Your task to perform on an android device: Open Google Maps Image 0: 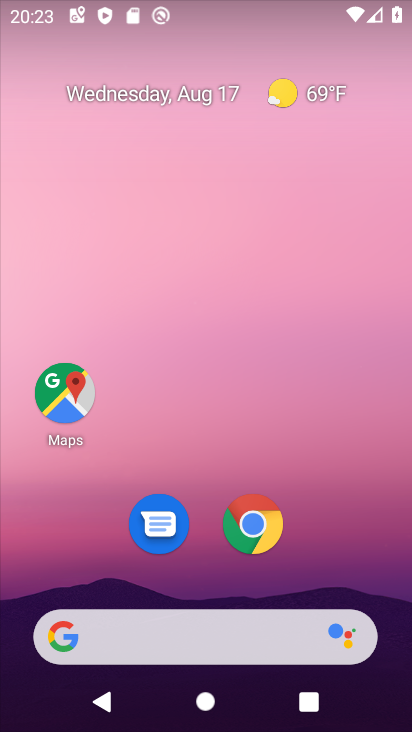
Step 0: click (63, 395)
Your task to perform on an android device: Open Google Maps Image 1: 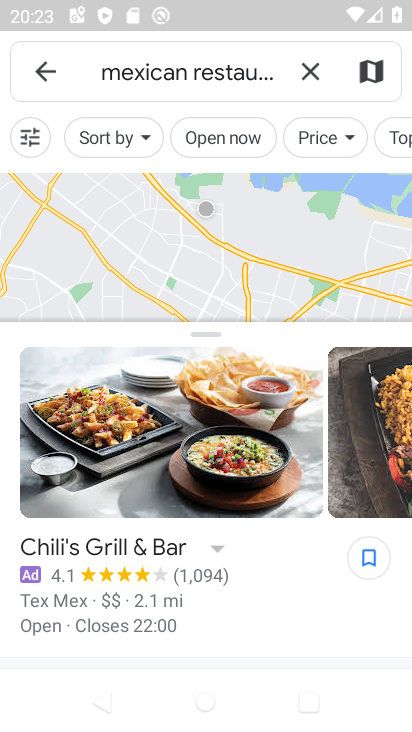
Step 1: click (306, 61)
Your task to perform on an android device: Open Google Maps Image 2: 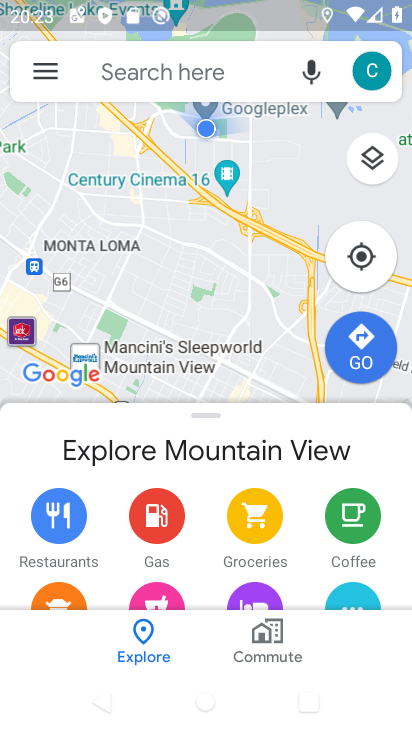
Step 2: task complete